Your task to perform on an android device: toggle notification dots Image 0: 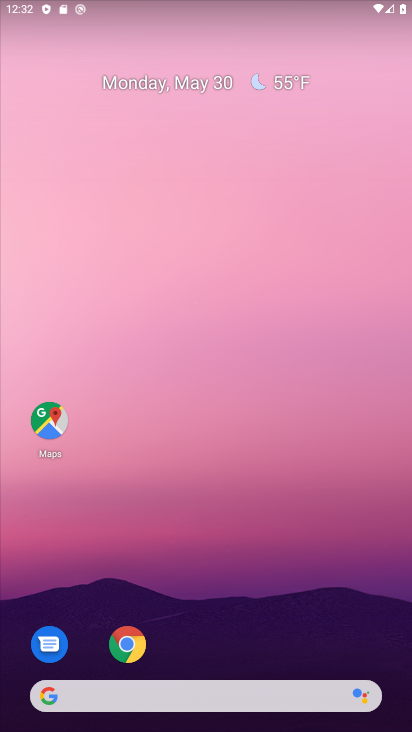
Step 0: drag from (306, 604) to (285, 171)
Your task to perform on an android device: toggle notification dots Image 1: 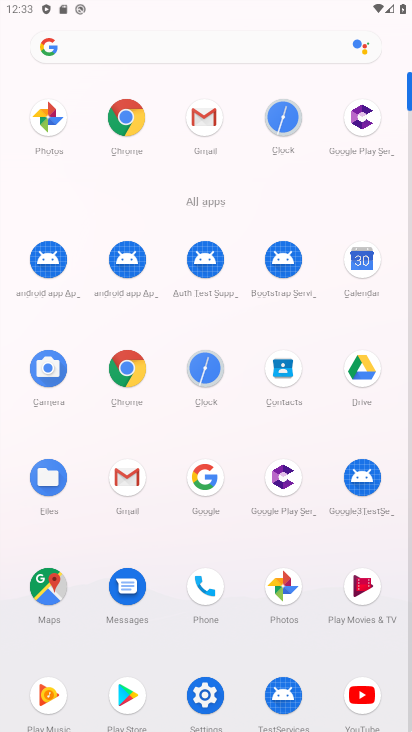
Step 1: click (223, 692)
Your task to perform on an android device: toggle notification dots Image 2: 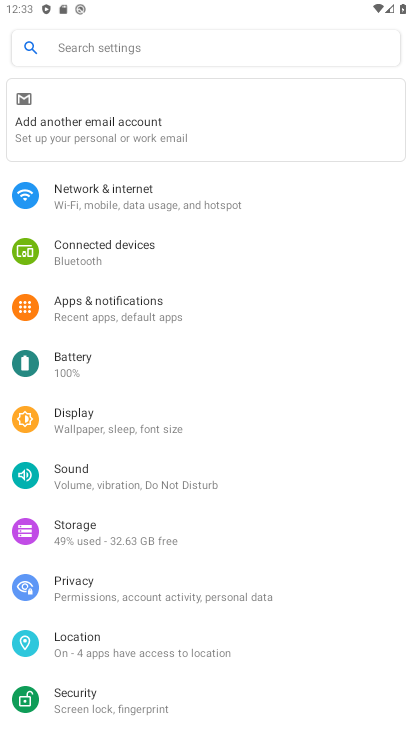
Step 2: click (183, 314)
Your task to perform on an android device: toggle notification dots Image 3: 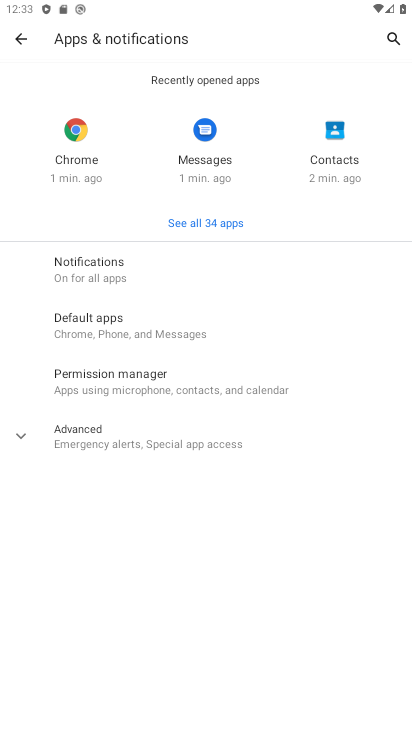
Step 3: click (260, 278)
Your task to perform on an android device: toggle notification dots Image 4: 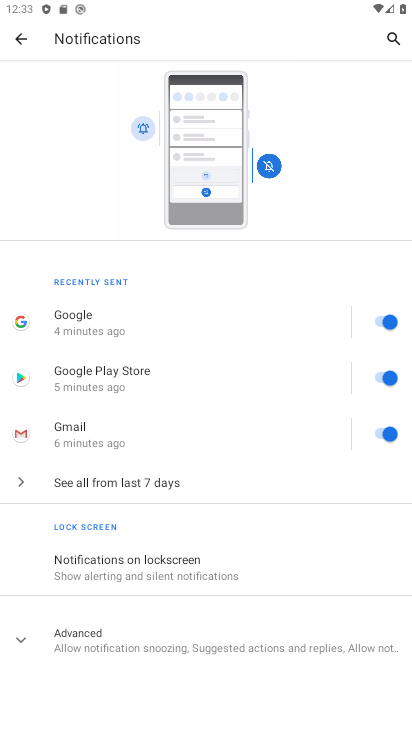
Step 4: drag from (324, 581) to (326, 354)
Your task to perform on an android device: toggle notification dots Image 5: 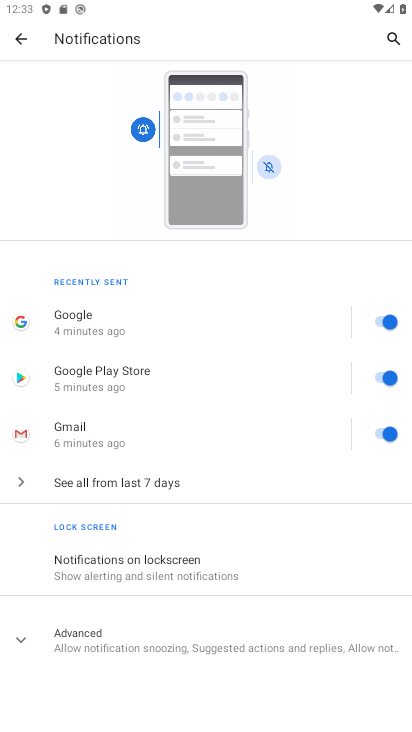
Step 5: click (240, 647)
Your task to perform on an android device: toggle notification dots Image 6: 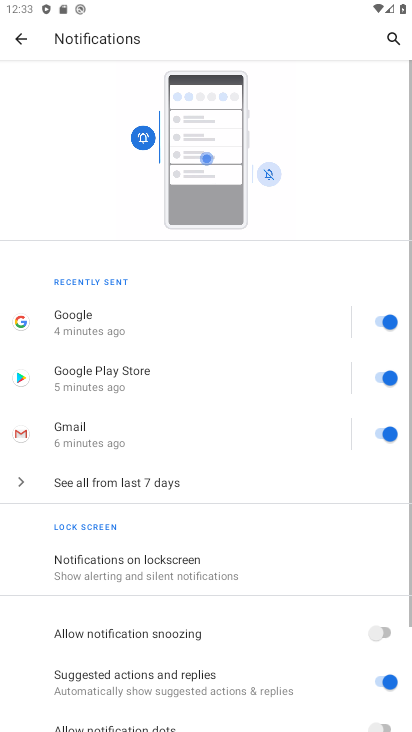
Step 6: drag from (240, 647) to (268, 437)
Your task to perform on an android device: toggle notification dots Image 7: 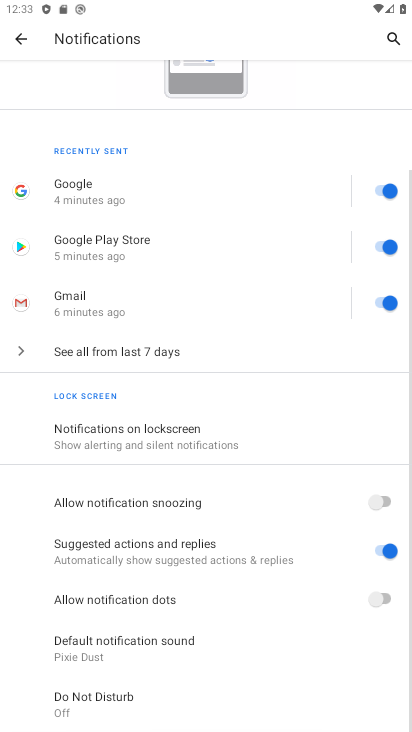
Step 7: click (367, 580)
Your task to perform on an android device: toggle notification dots Image 8: 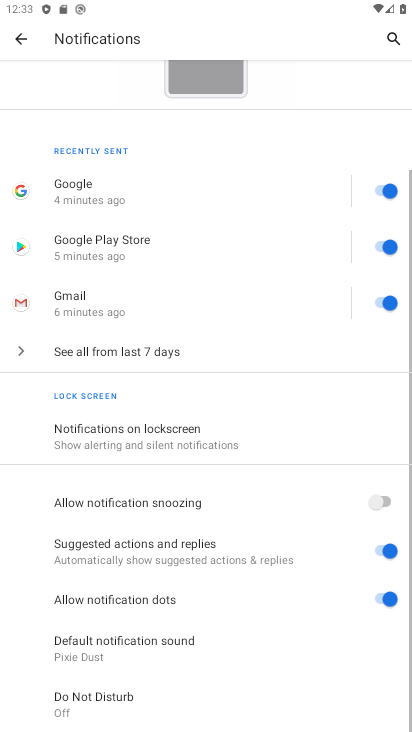
Step 8: task complete